Your task to perform on an android device: open app "Expedia: Hotels, Flights & Car" Image 0: 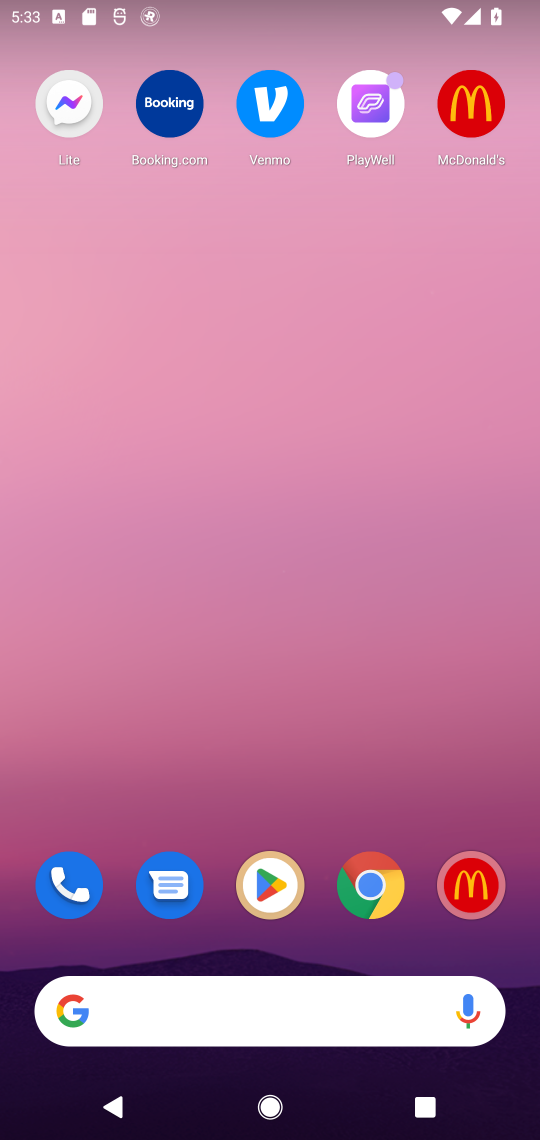
Step 0: click (256, 885)
Your task to perform on an android device: open app "Expedia: Hotels, Flights & Car" Image 1: 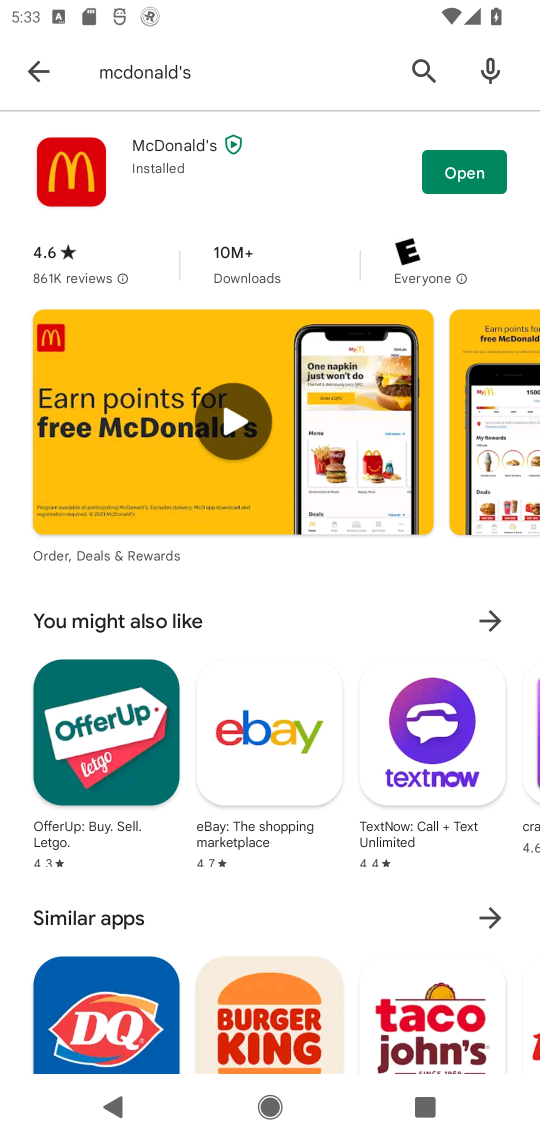
Step 1: click (417, 83)
Your task to perform on an android device: open app "Expedia: Hotels, Flights & Car" Image 2: 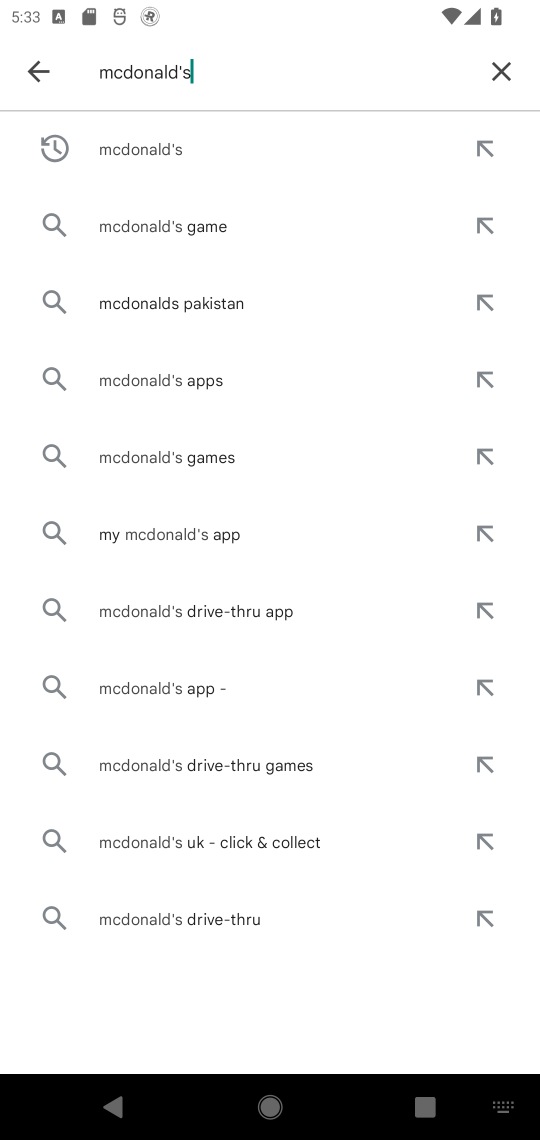
Step 2: click (496, 79)
Your task to perform on an android device: open app "Expedia: Hotels, Flights & Car" Image 3: 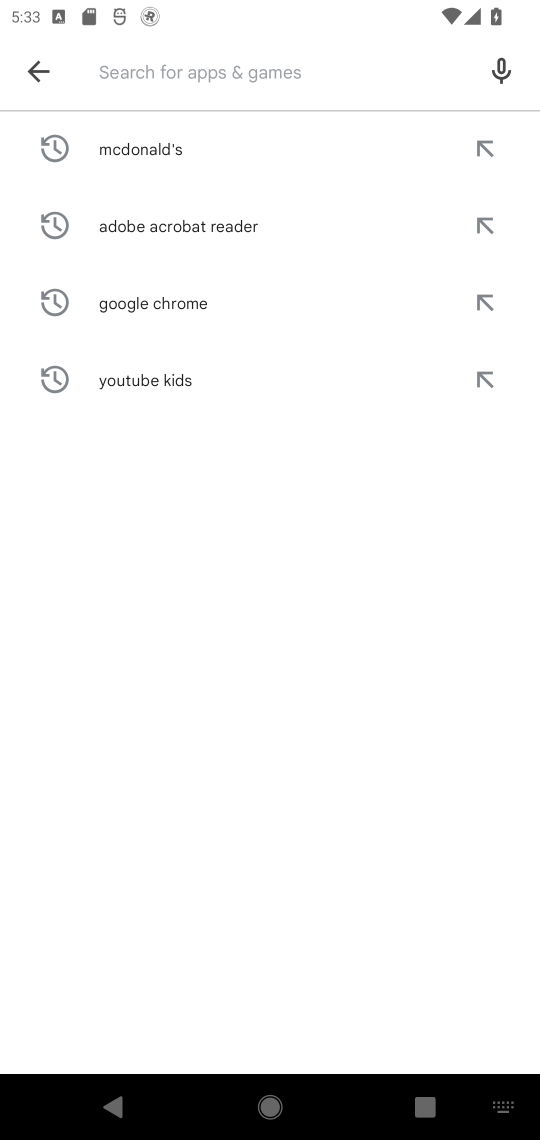
Step 3: click (204, 79)
Your task to perform on an android device: open app "Expedia: Hotels, Flights & Car" Image 4: 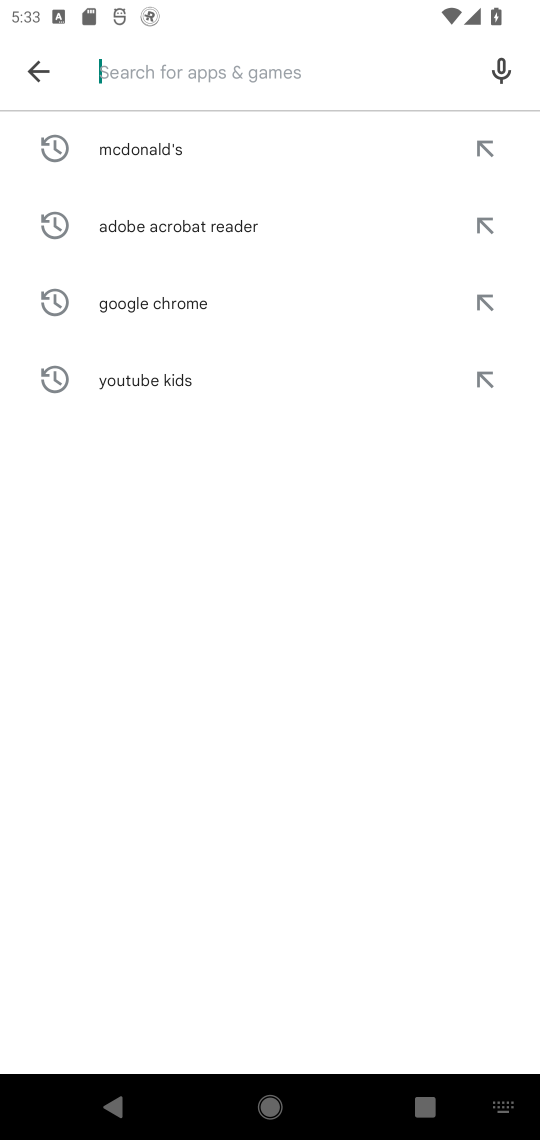
Step 4: click (160, 88)
Your task to perform on an android device: open app "Expedia: Hotels, Flights & Car" Image 5: 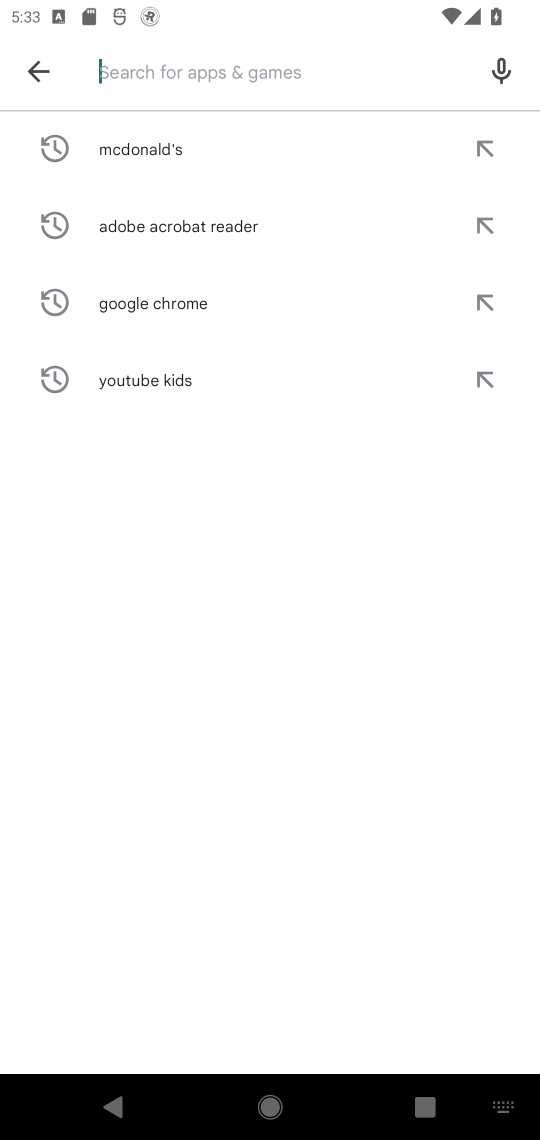
Step 5: type "Expedia: Hotels"
Your task to perform on an android device: open app "Expedia: Hotels, Flights & Car" Image 6: 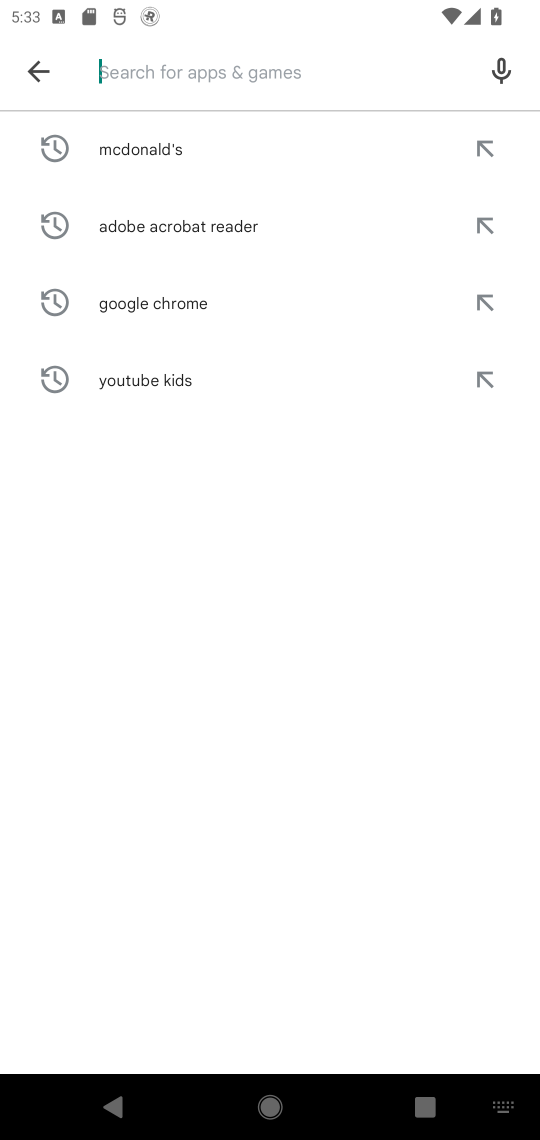
Step 6: click (273, 697)
Your task to perform on an android device: open app "Expedia: Hotels, Flights & Car" Image 7: 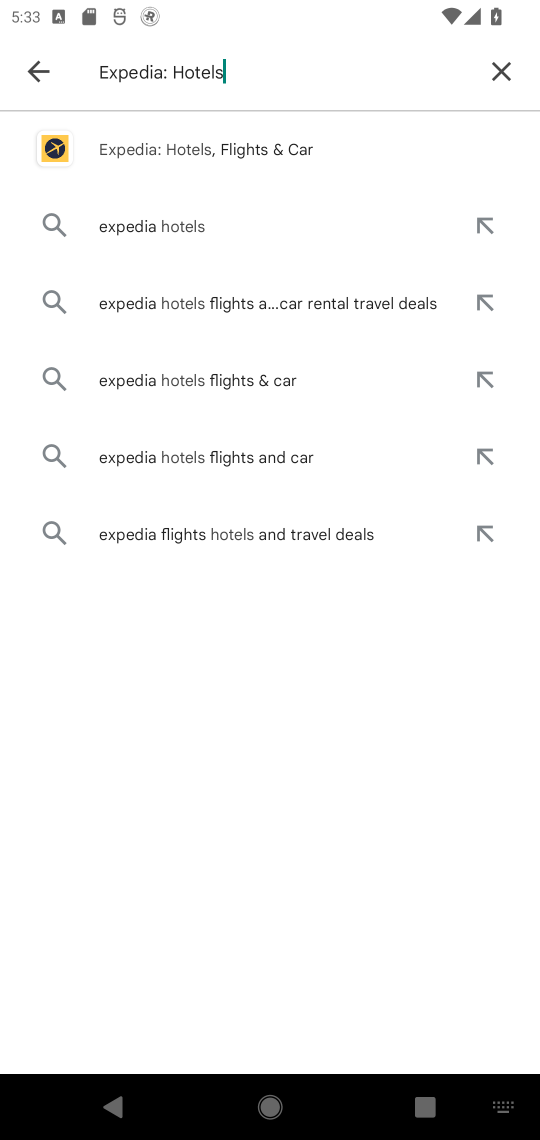
Step 7: click (233, 150)
Your task to perform on an android device: open app "Expedia: Hotels, Flights & Car" Image 8: 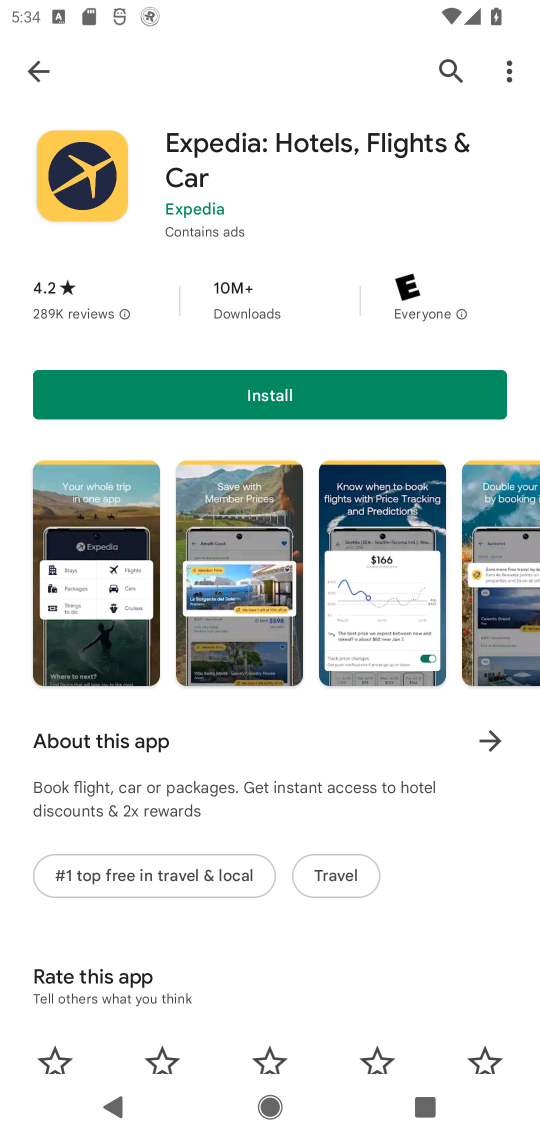
Step 8: task complete